Your task to perform on an android device: Open the stopwatch Image 0: 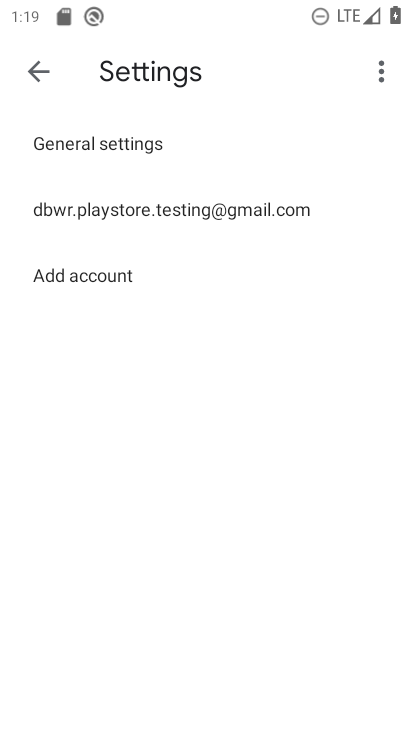
Step 0: press home button
Your task to perform on an android device: Open the stopwatch Image 1: 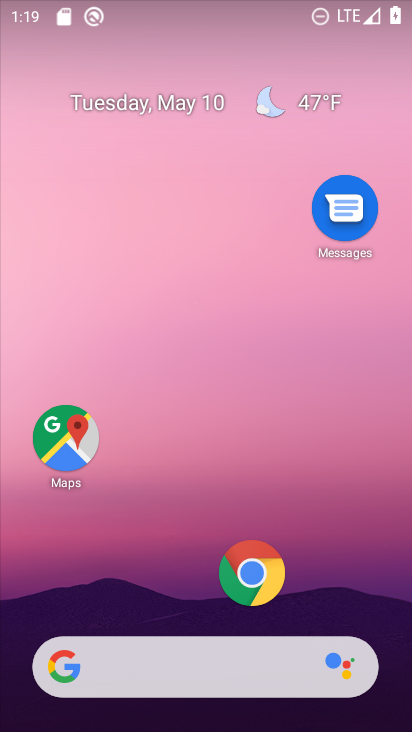
Step 1: drag from (173, 613) to (288, 294)
Your task to perform on an android device: Open the stopwatch Image 2: 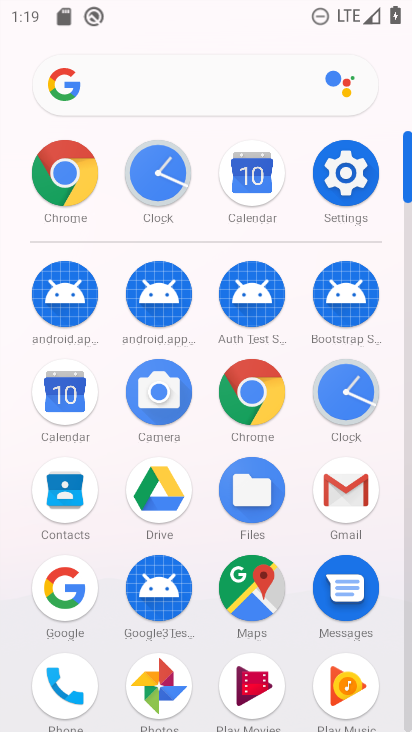
Step 2: click (349, 383)
Your task to perform on an android device: Open the stopwatch Image 3: 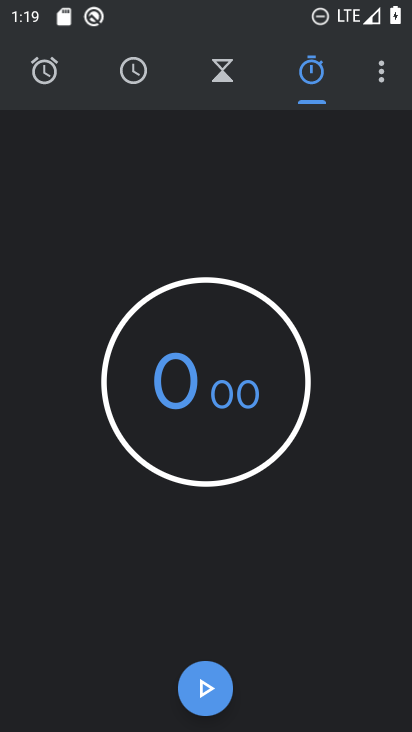
Step 3: click (202, 688)
Your task to perform on an android device: Open the stopwatch Image 4: 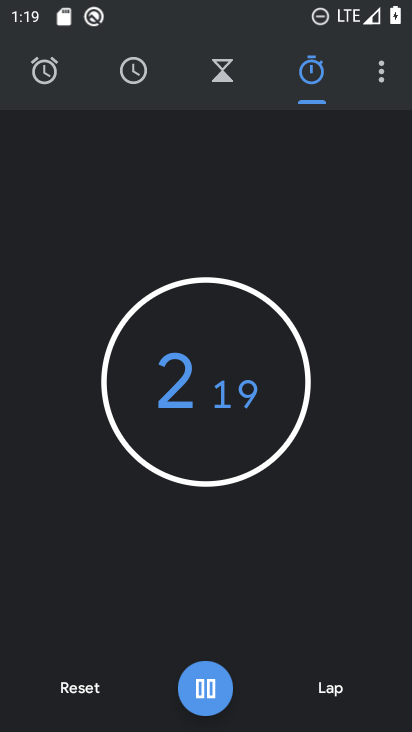
Step 4: task complete